Your task to perform on an android device: Go to Reddit.com Image 0: 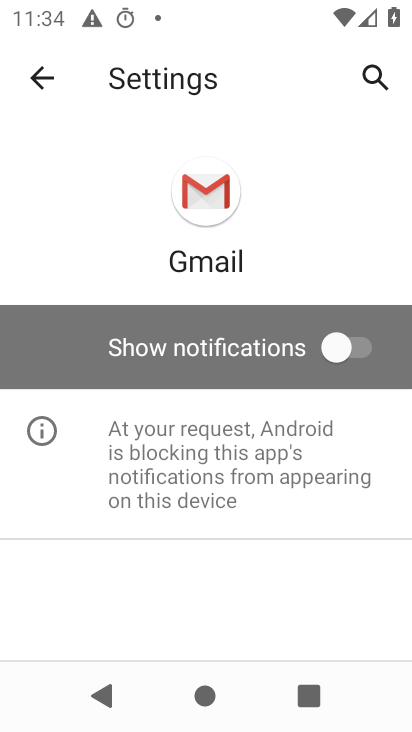
Step 0: press back button
Your task to perform on an android device: Go to Reddit.com Image 1: 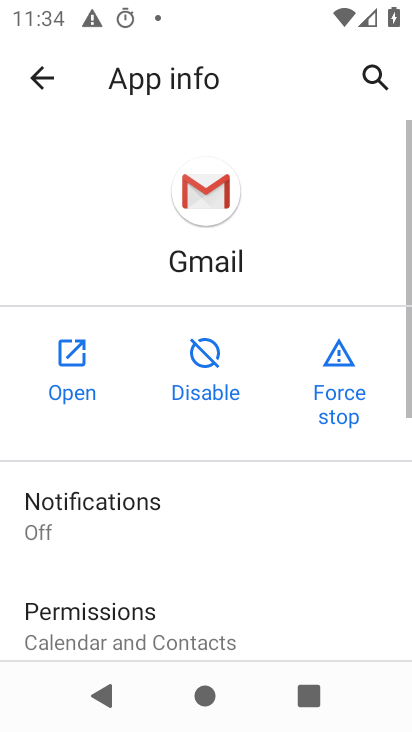
Step 1: press back button
Your task to perform on an android device: Go to Reddit.com Image 2: 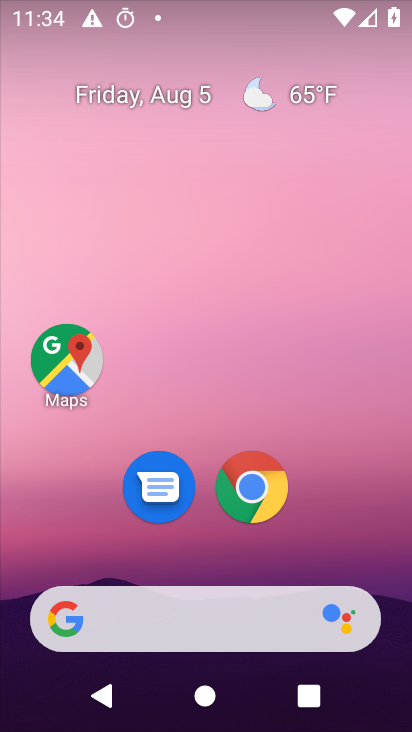
Step 2: click (238, 472)
Your task to perform on an android device: Go to Reddit.com Image 3: 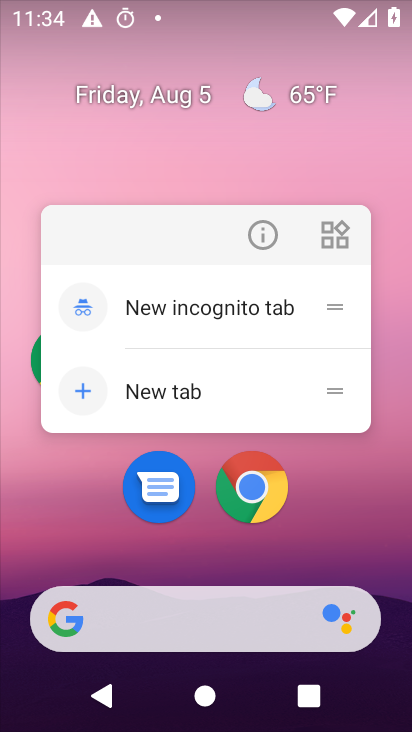
Step 3: click (239, 485)
Your task to perform on an android device: Go to Reddit.com Image 4: 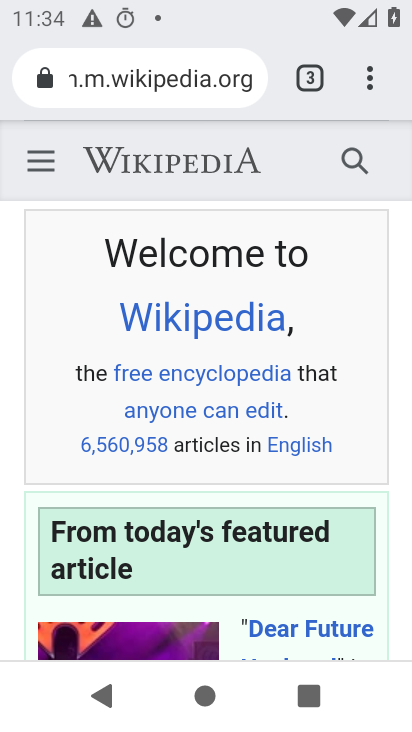
Step 4: click (312, 75)
Your task to perform on an android device: Go to Reddit.com Image 5: 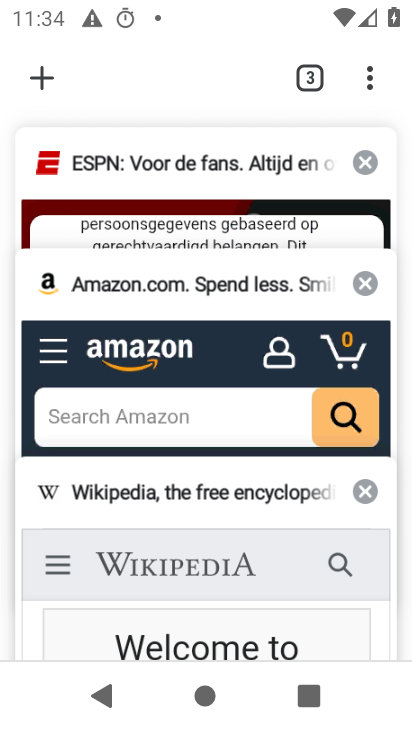
Step 5: click (49, 70)
Your task to perform on an android device: Go to Reddit.com Image 6: 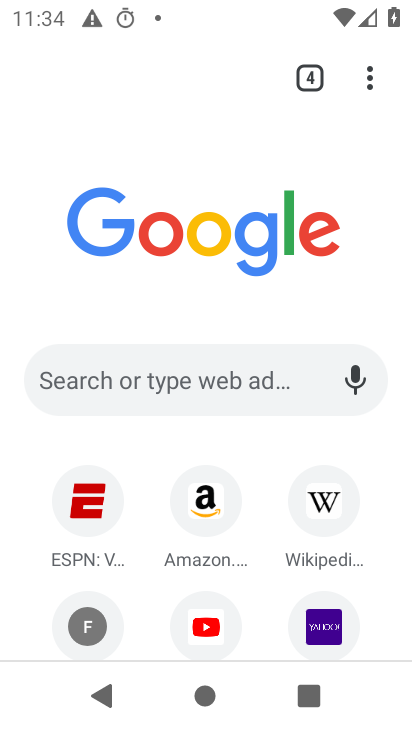
Step 6: click (120, 371)
Your task to perform on an android device: Go to Reddit.com Image 7: 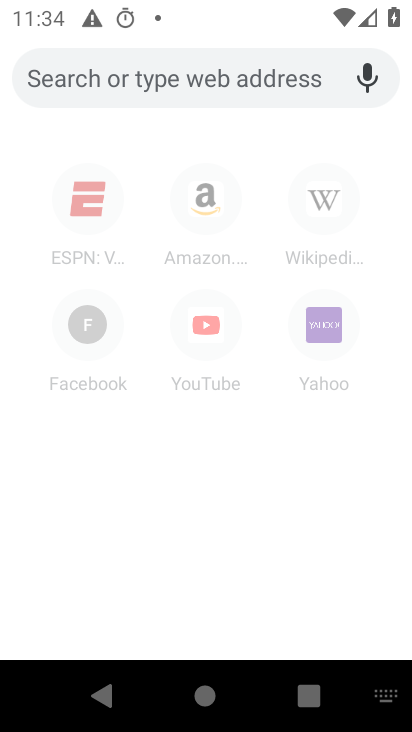
Step 7: type "reddit.com"
Your task to perform on an android device: Go to Reddit.com Image 8: 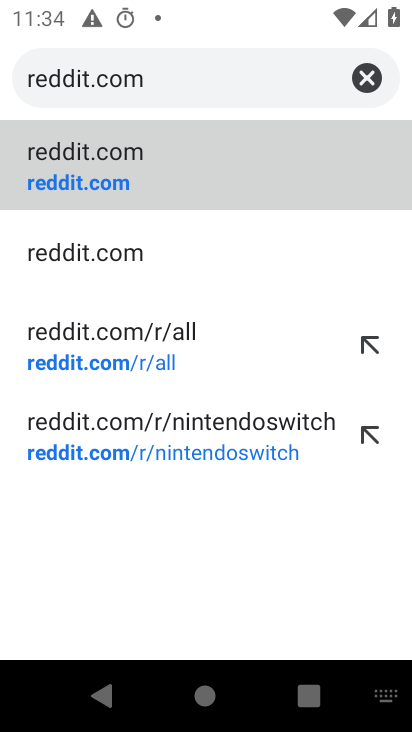
Step 8: click (144, 176)
Your task to perform on an android device: Go to Reddit.com Image 9: 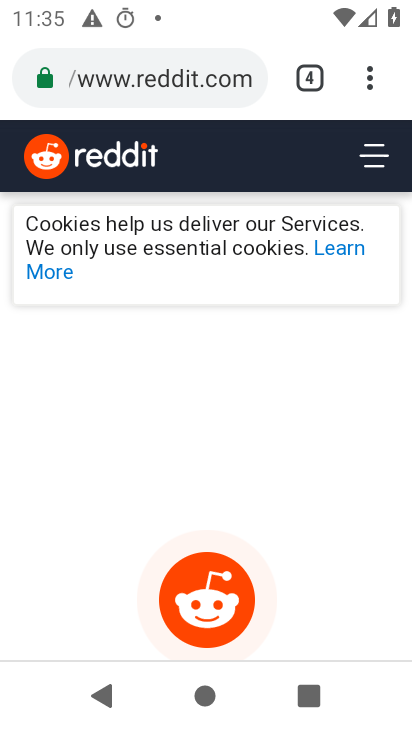
Step 9: task complete